Your task to perform on an android device: turn off notifications settings in the gmail app Image 0: 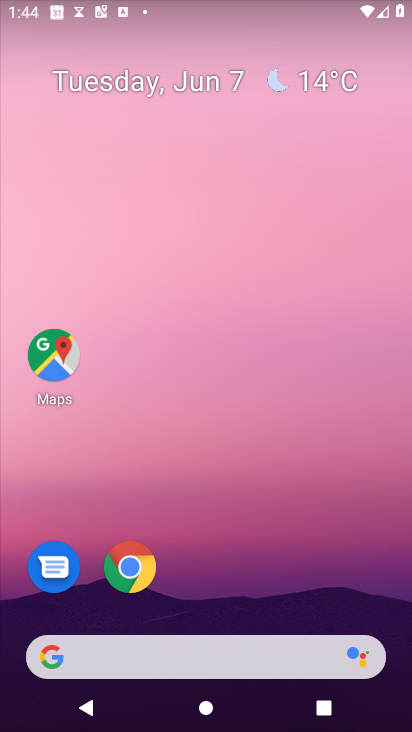
Step 0: drag from (188, 630) to (259, 34)
Your task to perform on an android device: turn off notifications settings in the gmail app Image 1: 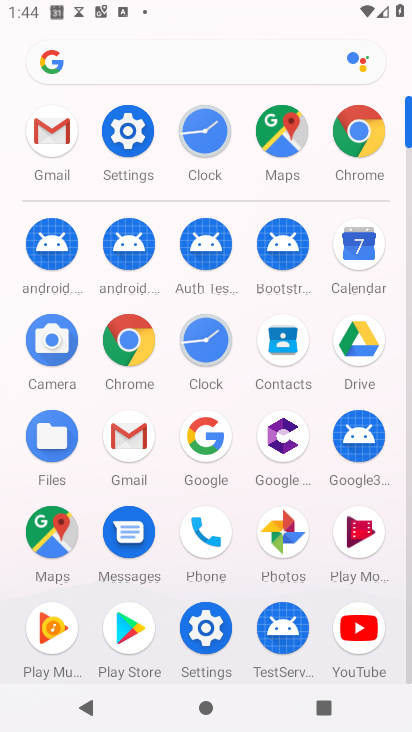
Step 1: click (129, 434)
Your task to perform on an android device: turn off notifications settings in the gmail app Image 2: 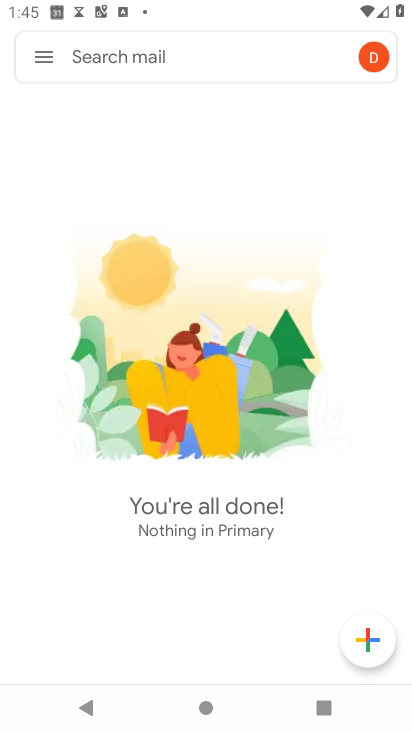
Step 2: click (45, 48)
Your task to perform on an android device: turn off notifications settings in the gmail app Image 3: 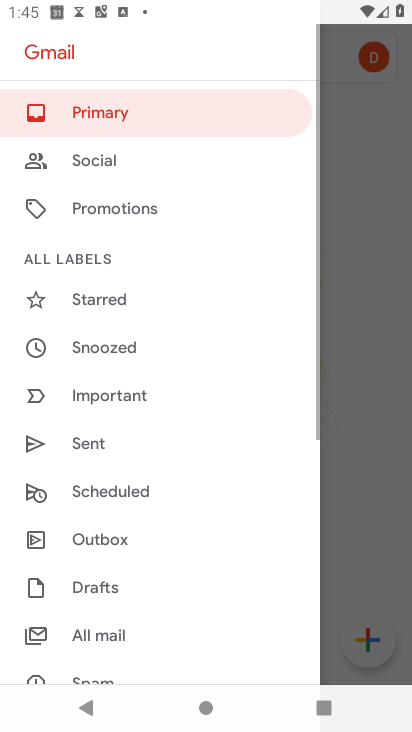
Step 3: drag from (107, 649) to (140, 172)
Your task to perform on an android device: turn off notifications settings in the gmail app Image 4: 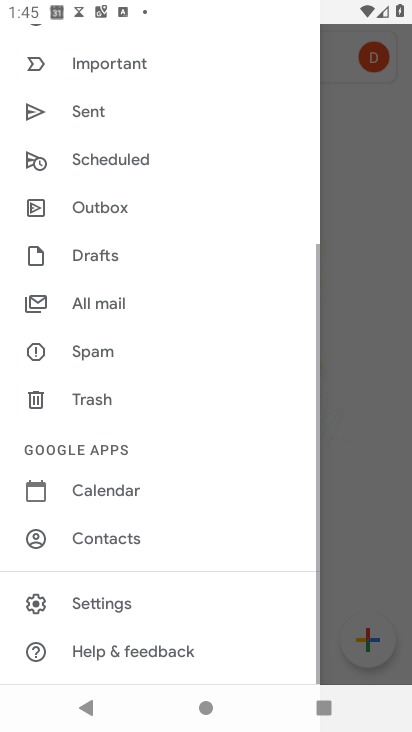
Step 4: click (125, 605)
Your task to perform on an android device: turn off notifications settings in the gmail app Image 5: 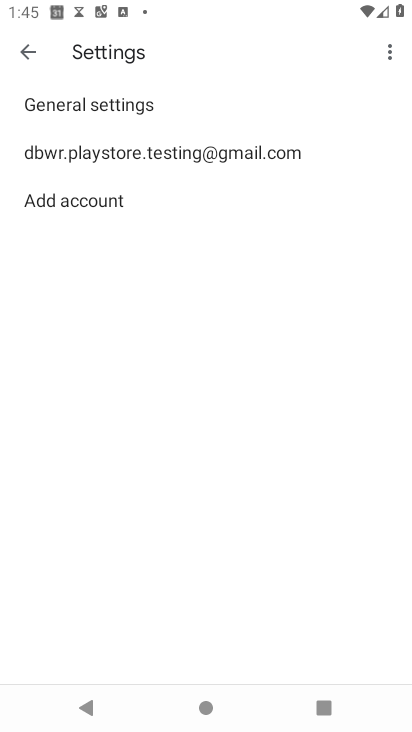
Step 5: click (131, 156)
Your task to perform on an android device: turn off notifications settings in the gmail app Image 6: 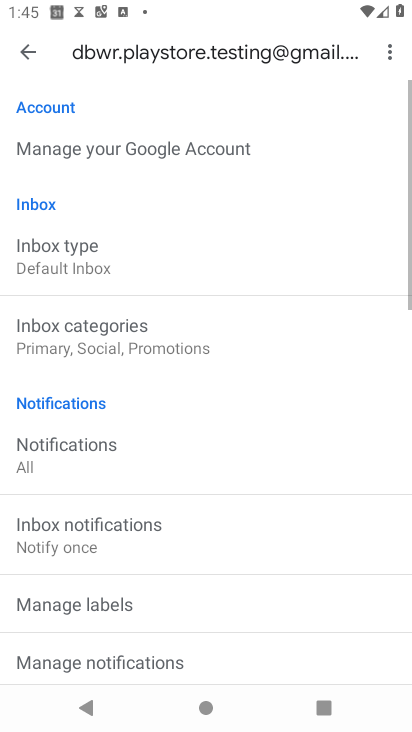
Step 6: drag from (88, 634) to (134, 231)
Your task to perform on an android device: turn off notifications settings in the gmail app Image 7: 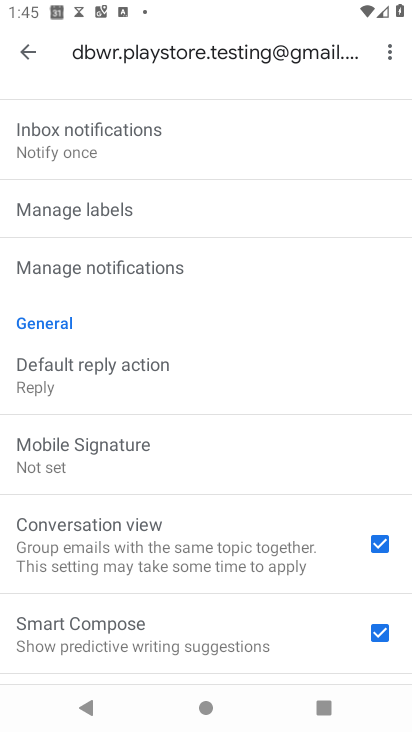
Step 7: click (105, 279)
Your task to perform on an android device: turn off notifications settings in the gmail app Image 8: 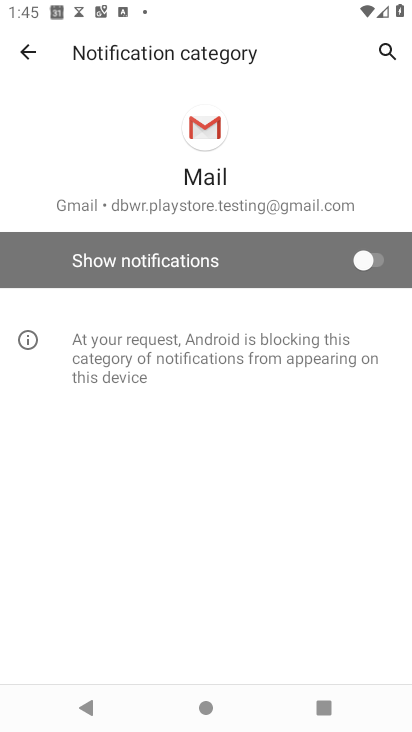
Step 8: task complete